Your task to perform on an android device: What's on my calendar today? Image 0: 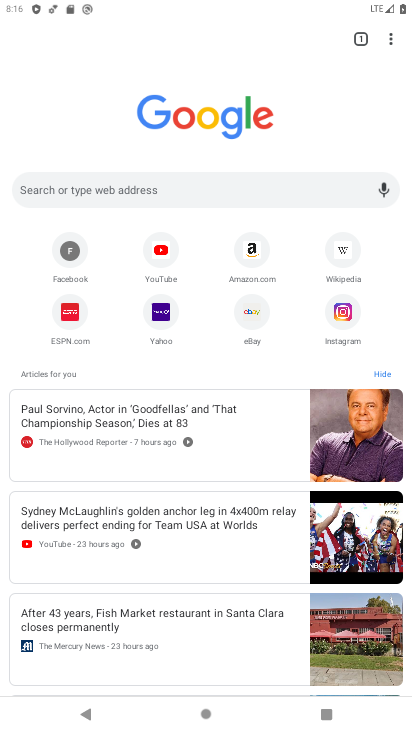
Step 0: press home button
Your task to perform on an android device: What's on my calendar today? Image 1: 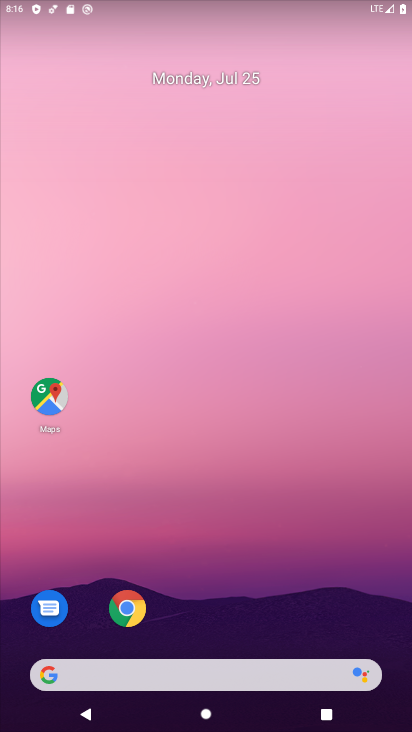
Step 1: drag from (246, 699) to (240, 282)
Your task to perform on an android device: What's on my calendar today? Image 2: 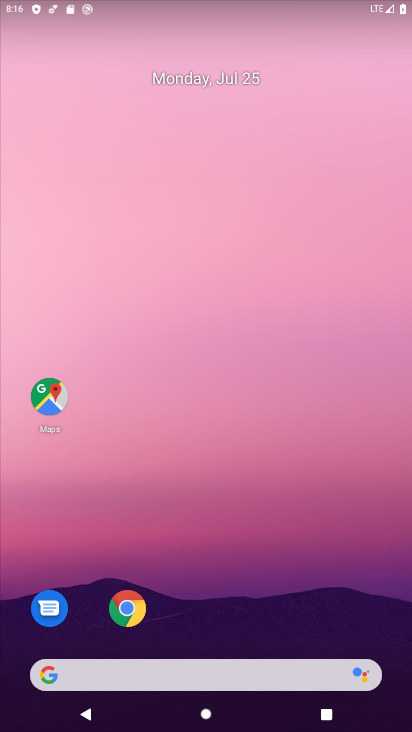
Step 2: drag from (243, 726) to (192, 63)
Your task to perform on an android device: What's on my calendar today? Image 3: 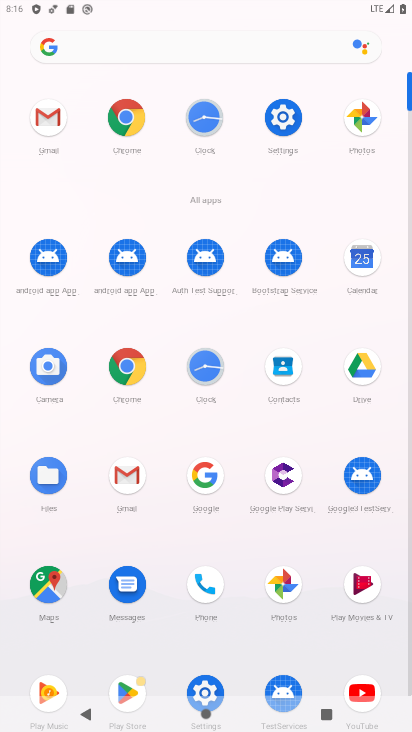
Step 3: click (360, 259)
Your task to perform on an android device: What's on my calendar today? Image 4: 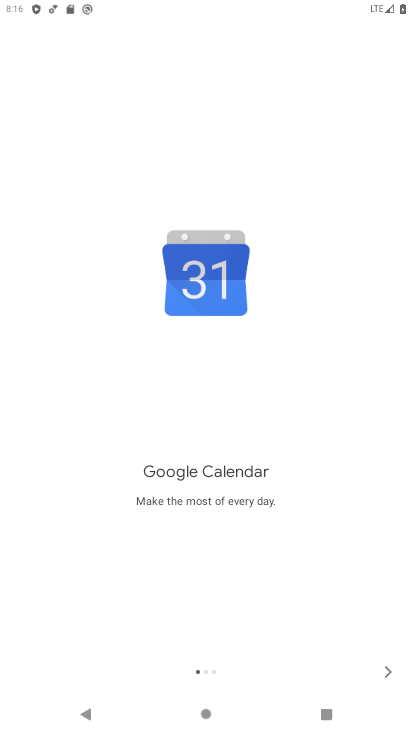
Step 4: click (389, 670)
Your task to perform on an android device: What's on my calendar today? Image 5: 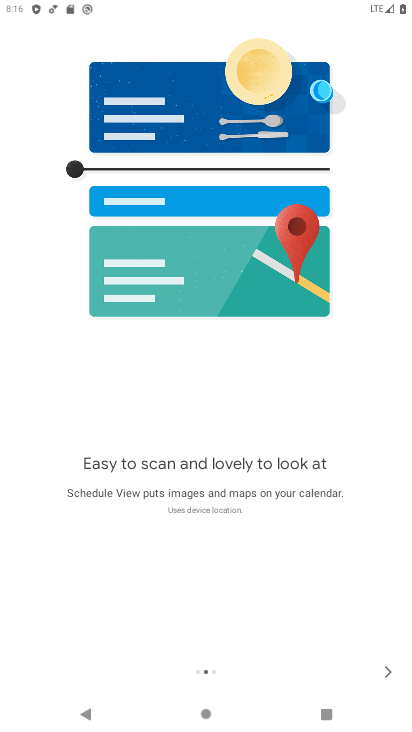
Step 5: click (390, 673)
Your task to perform on an android device: What's on my calendar today? Image 6: 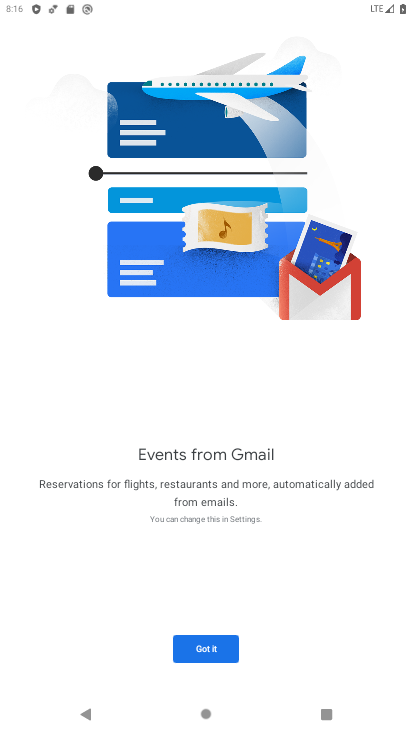
Step 6: click (210, 655)
Your task to perform on an android device: What's on my calendar today? Image 7: 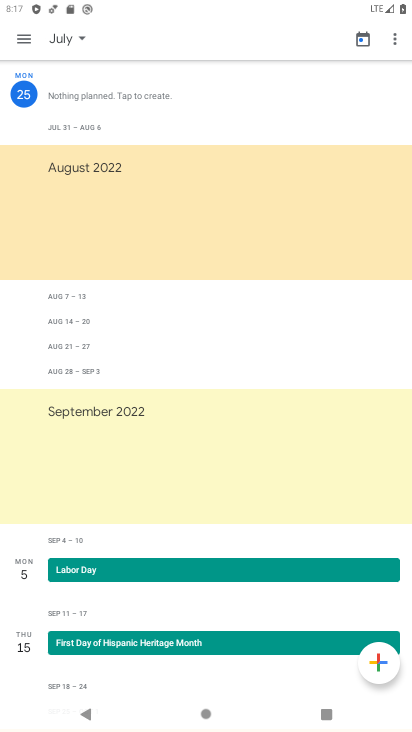
Step 7: click (32, 96)
Your task to perform on an android device: What's on my calendar today? Image 8: 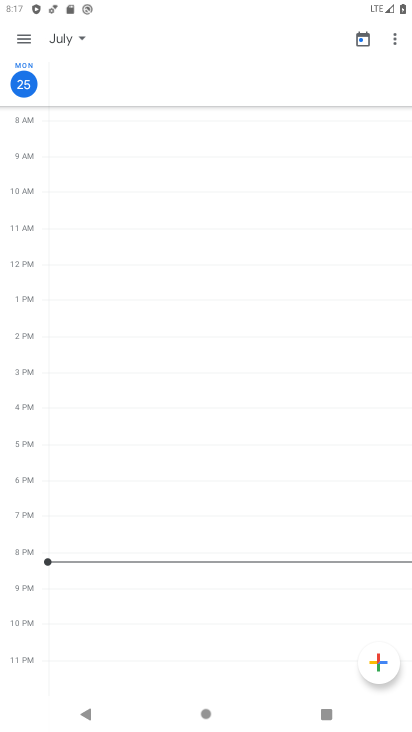
Step 8: task complete